Your task to perform on an android device: toggle data saver in the chrome app Image 0: 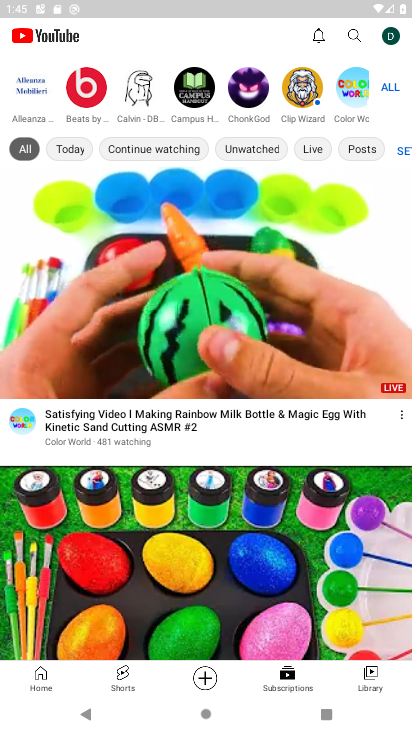
Step 0: press home button
Your task to perform on an android device: toggle data saver in the chrome app Image 1: 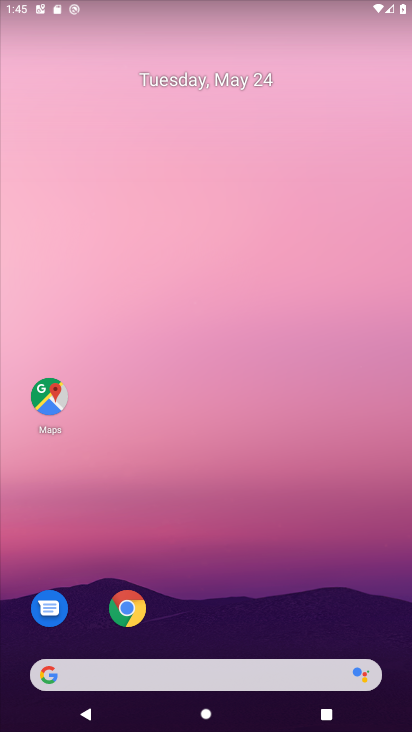
Step 1: drag from (277, 597) to (273, 91)
Your task to perform on an android device: toggle data saver in the chrome app Image 2: 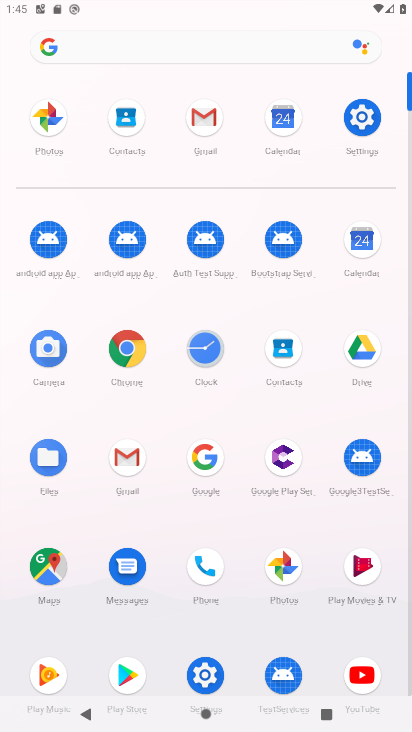
Step 2: click (110, 352)
Your task to perform on an android device: toggle data saver in the chrome app Image 3: 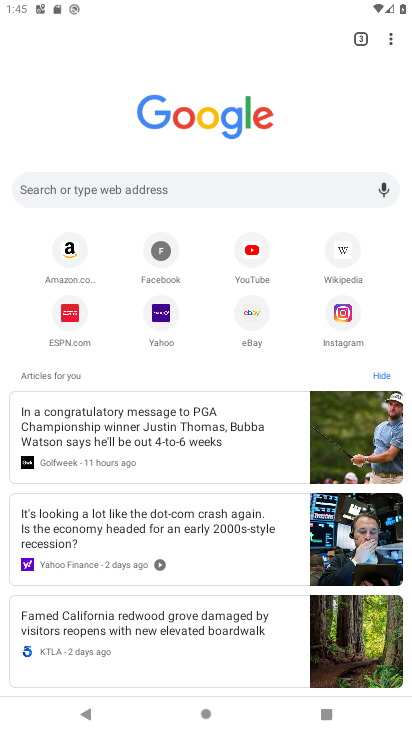
Step 3: click (388, 32)
Your task to perform on an android device: toggle data saver in the chrome app Image 4: 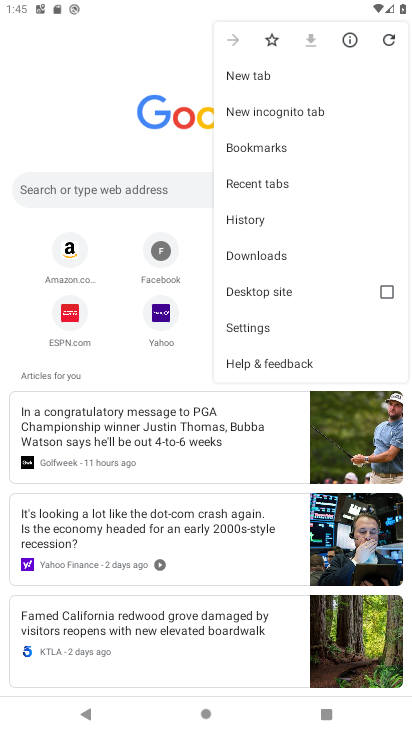
Step 4: click (244, 338)
Your task to perform on an android device: toggle data saver in the chrome app Image 5: 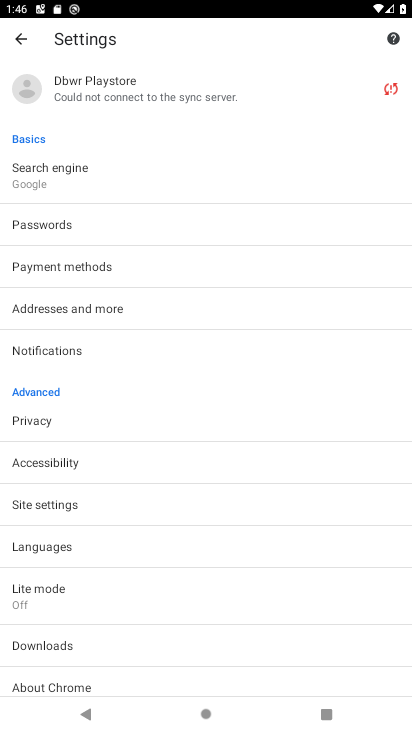
Step 5: click (135, 520)
Your task to perform on an android device: toggle data saver in the chrome app Image 6: 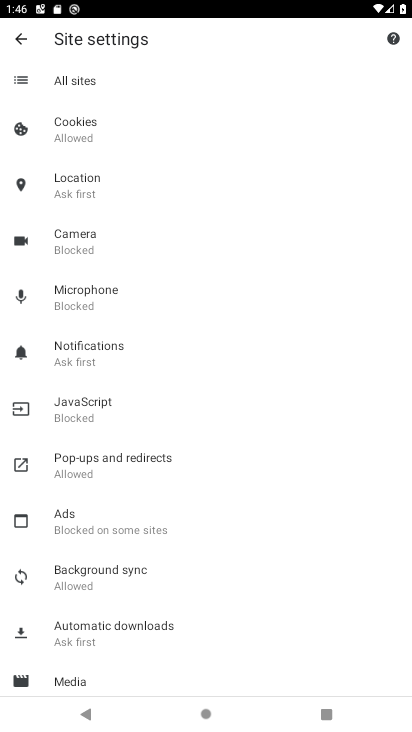
Step 6: task complete